Your task to perform on an android device: turn on translation in the chrome app Image 0: 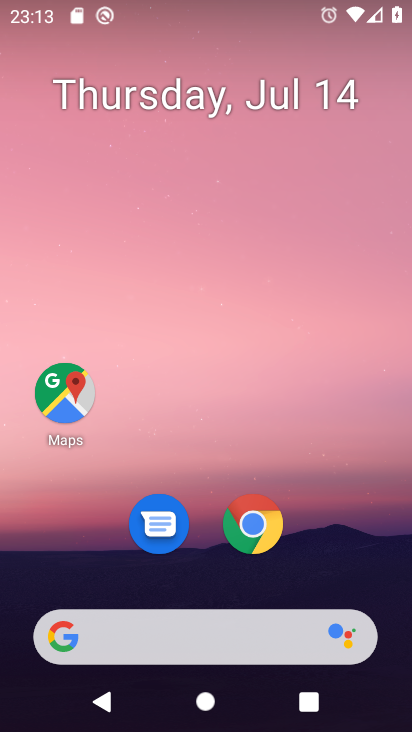
Step 0: click (251, 516)
Your task to perform on an android device: turn on translation in the chrome app Image 1: 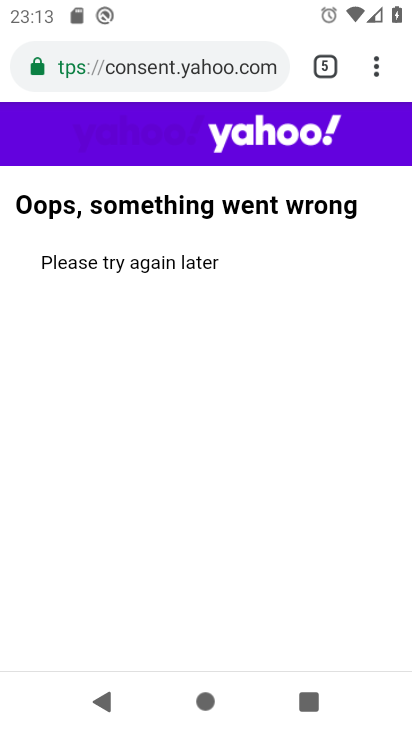
Step 1: click (375, 73)
Your task to perform on an android device: turn on translation in the chrome app Image 2: 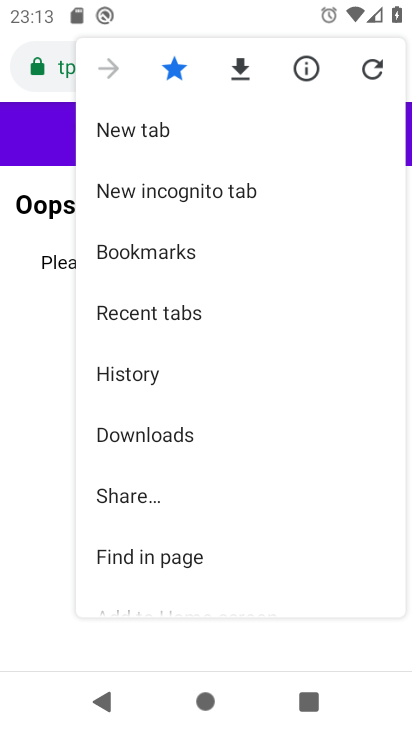
Step 2: drag from (241, 438) to (277, 187)
Your task to perform on an android device: turn on translation in the chrome app Image 3: 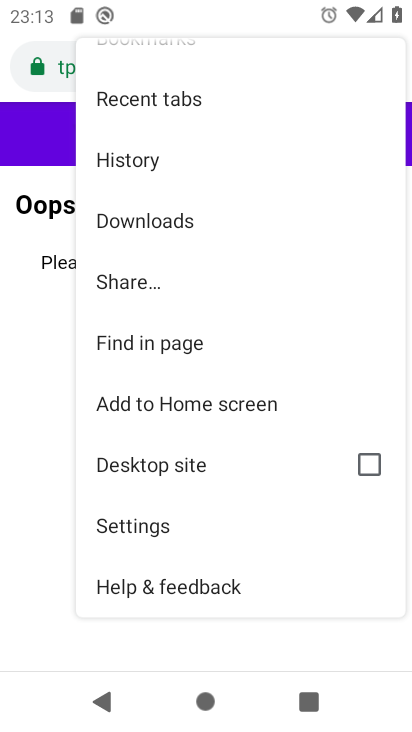
Step 3: click (155, 518)
Your task to perform on an android device: turn on translation in the chrome app Image 4: 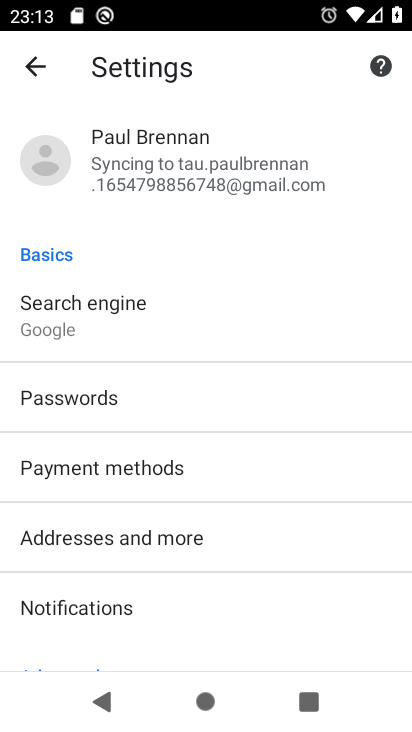
Step 4: drag from (272, 514) to (298, 153)
Your task to perform on an android device: turn on translation in the chrome app Image 5: 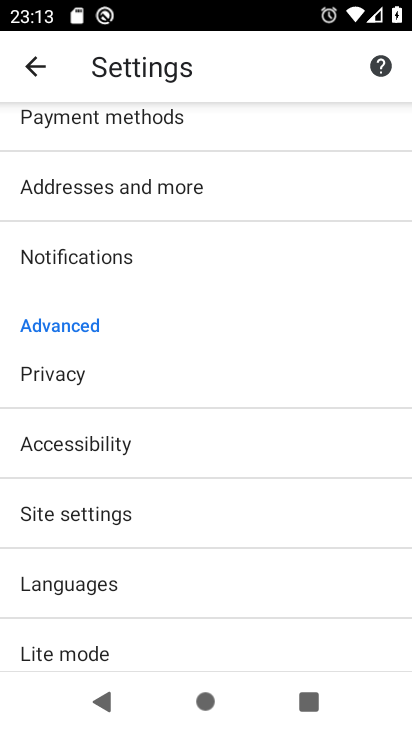
Step 5: click (182, 585)
Your task to perform on an android device: turn on translation in the chrome app Image 6: 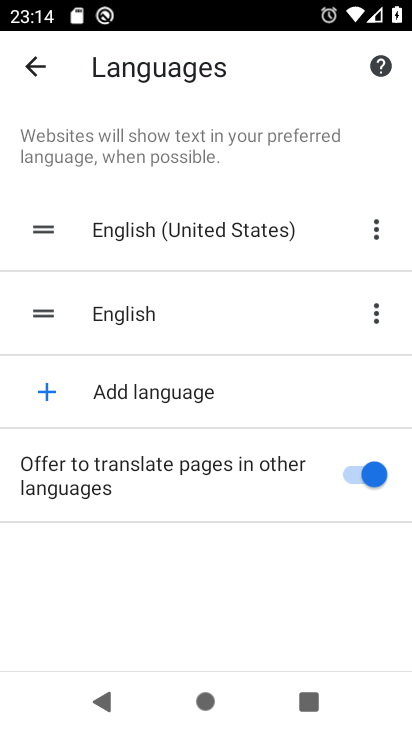
Step 6: task complete